Your task to perform on an android device: What's the news in Guyana? Image 0: 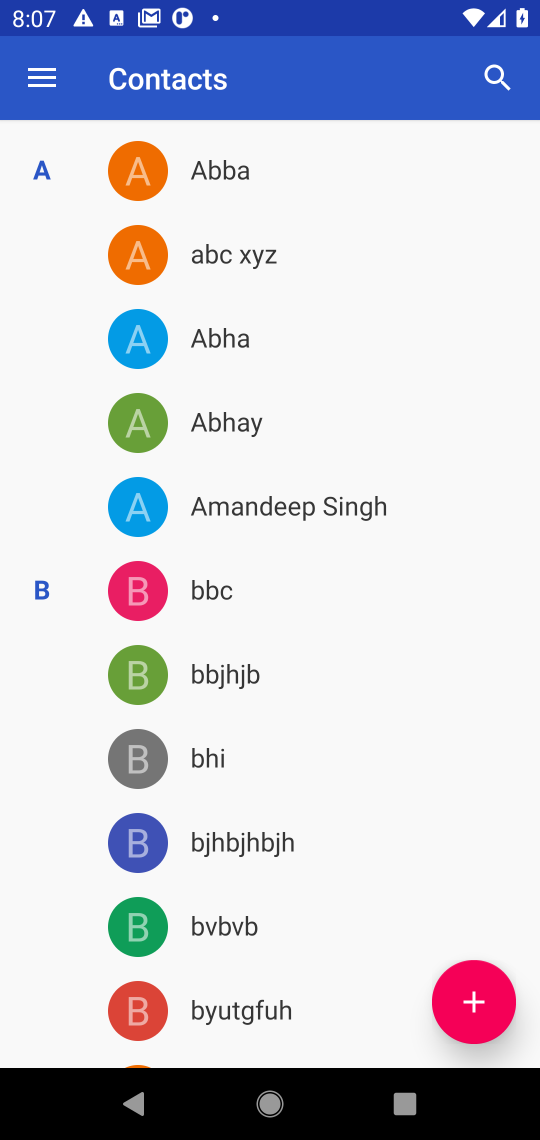
Step 0: press back button
Your task to perform on an android device: What's the news in Guyana? Image 1: 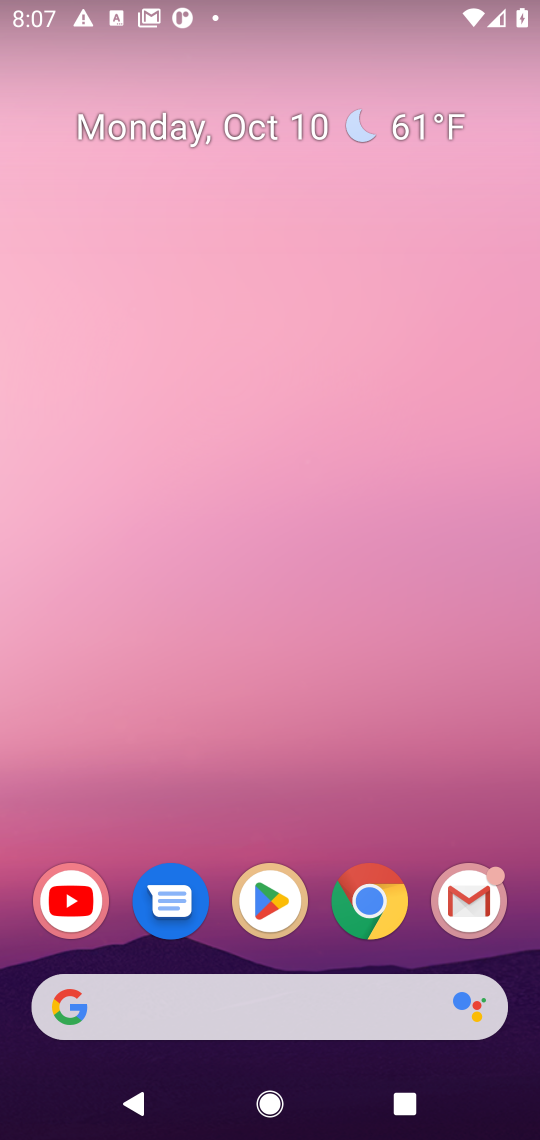
Step 1: click (364, 994)
Your task to perform on an android device: What's the news in Guyana? Image 2: 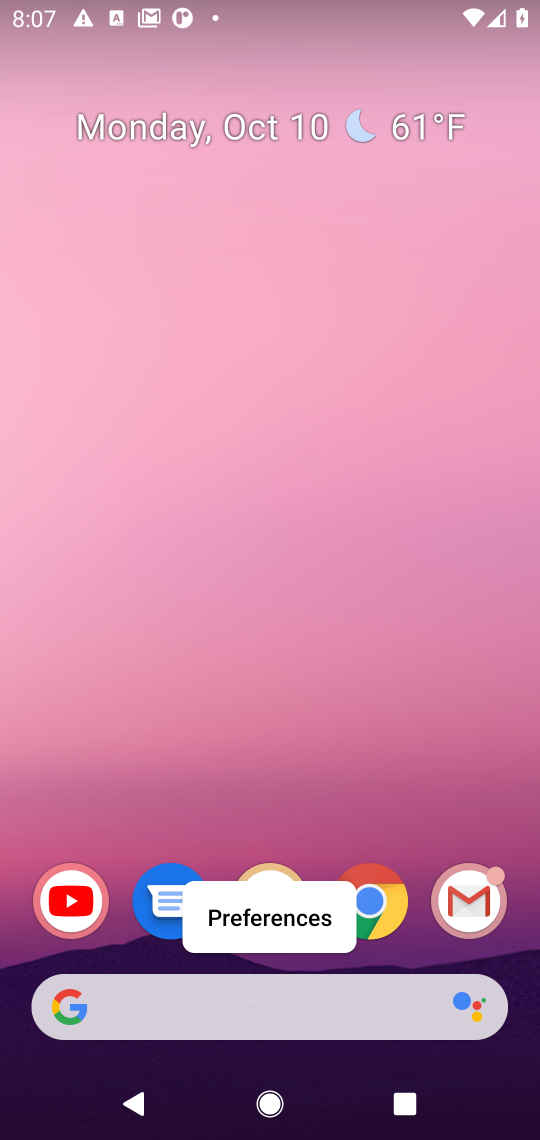
Step 2: click (185, 1006)
Your task to perform on an android device: What's the news in Guyana? Image 3: 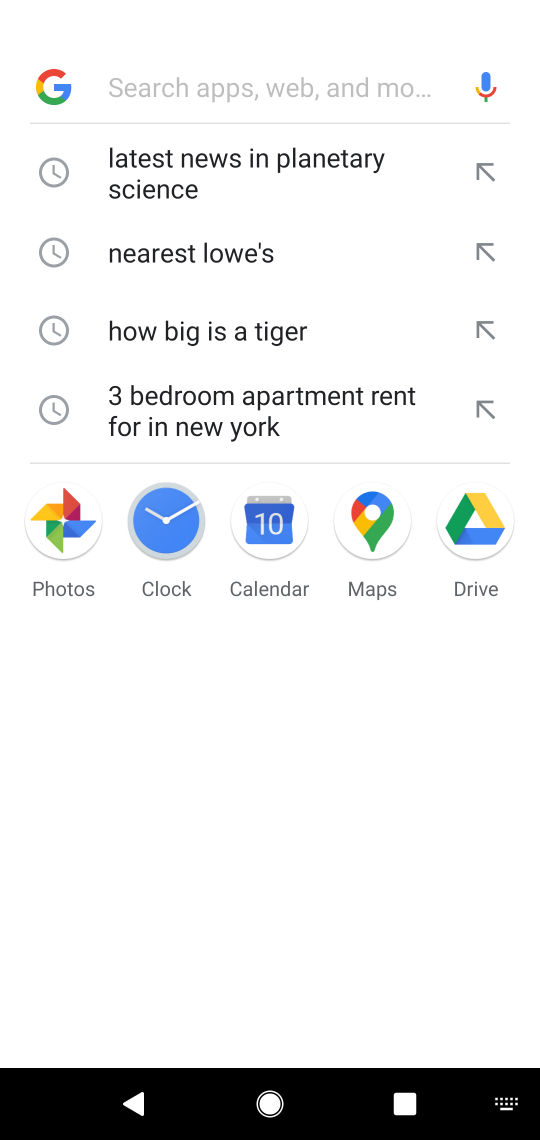
Step 3: type "the news in Guyana"
Your task to perform on an android device: What's the news in Guyana? Image 4: 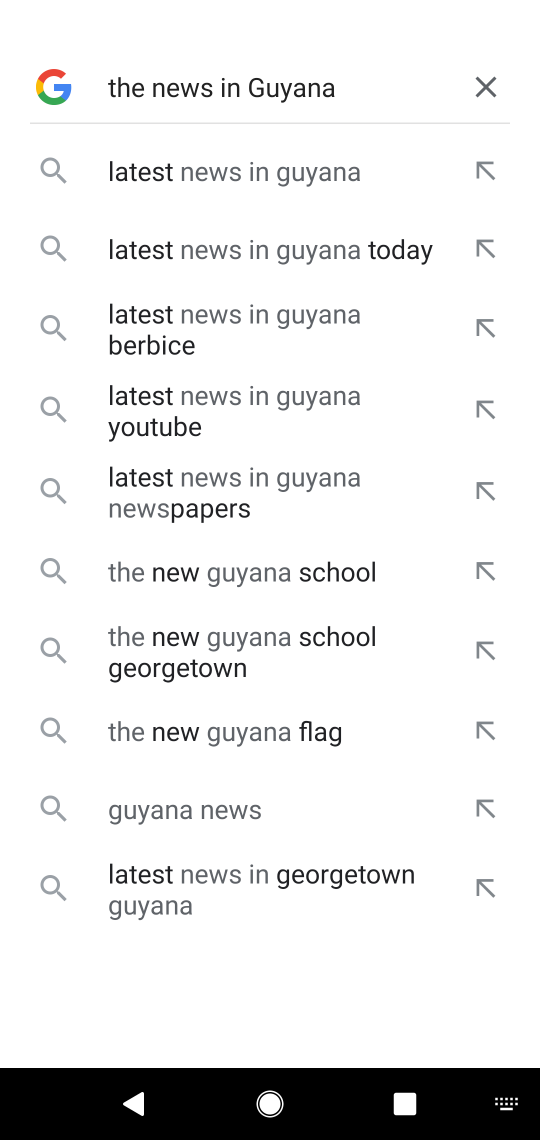
Step 4: type ""
Your task to perform on an android device: What's the news in Guyana? Image 5: 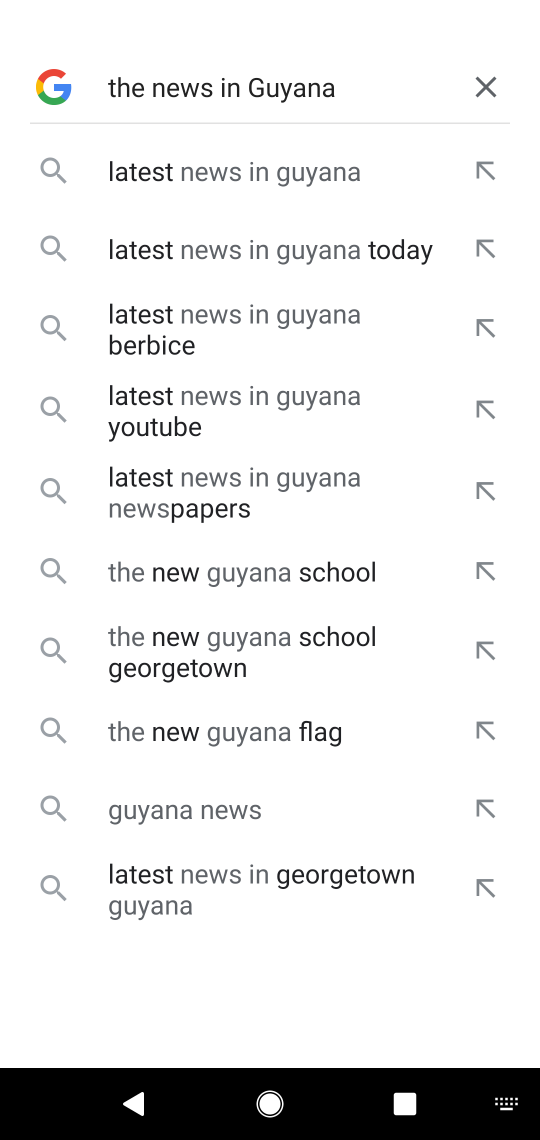
Step 5: click (218, 178)
Your task to perform on an android device: What's the news in Guyana? Image 6: 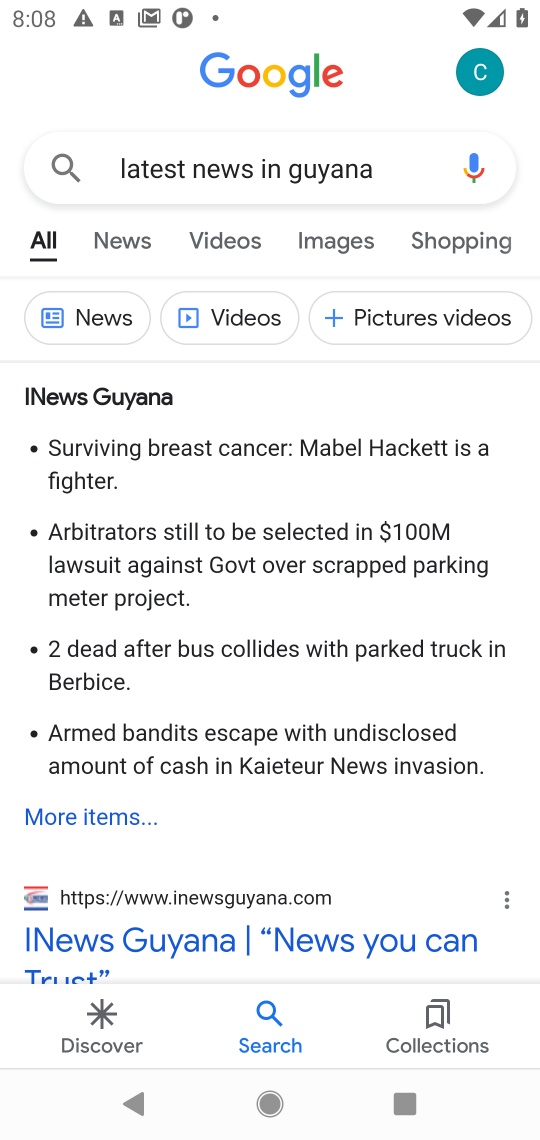
Step 6: drag from (209, 673) to (251, 326)
Your task to perform on an android device: What's the news in Guyana? Image 7: 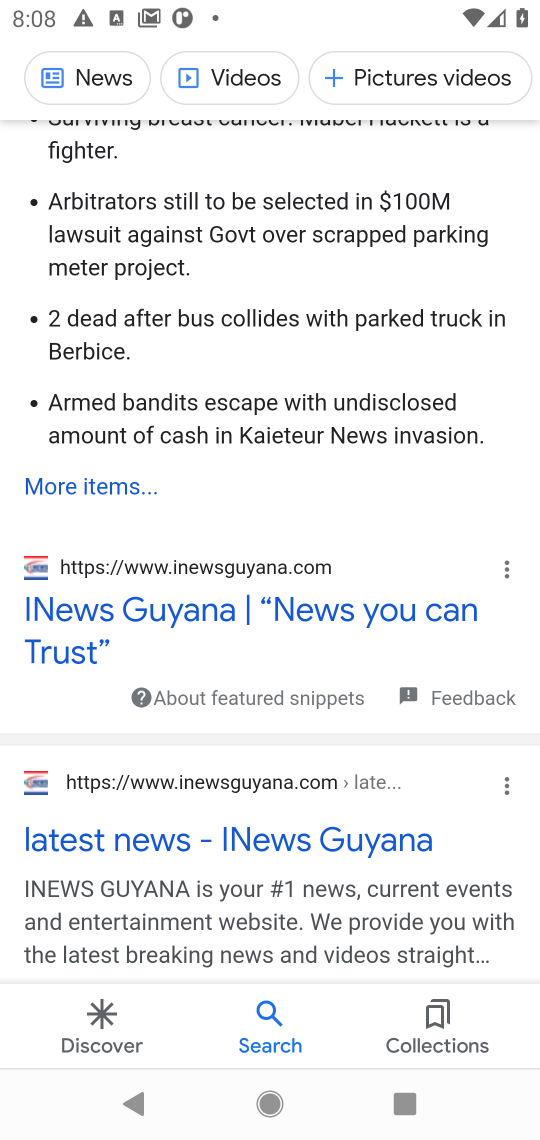
Step 7: drag from (410, 699) to (402, 457)
Your task to perform on an android device: What's the news in Guyana? Image 8: 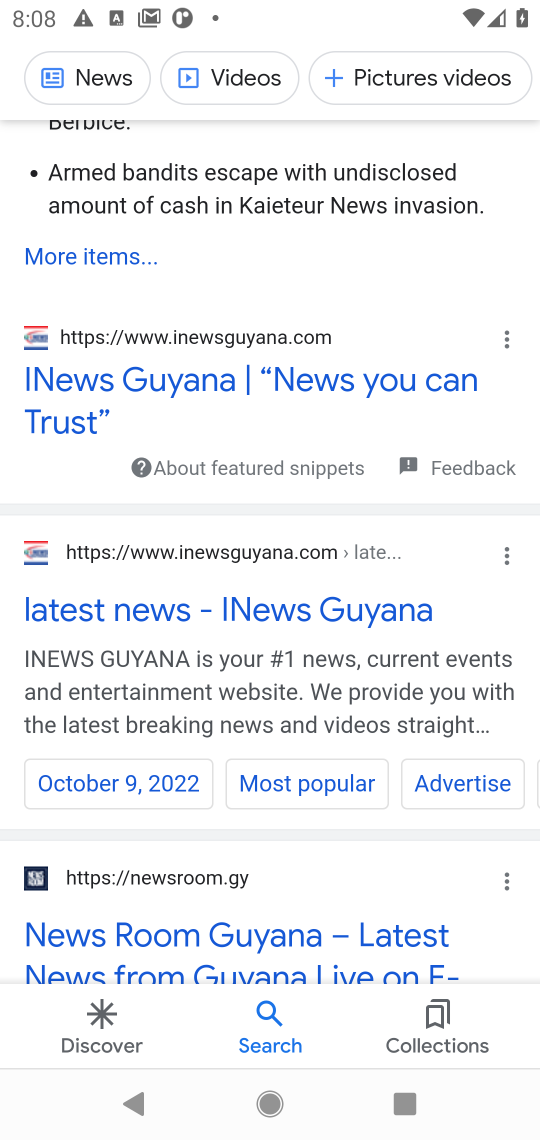
Step 8: drag from (314, 848) to (314, 517)
Your task to perform on an android device: What's the news in Guyana? Image 9: 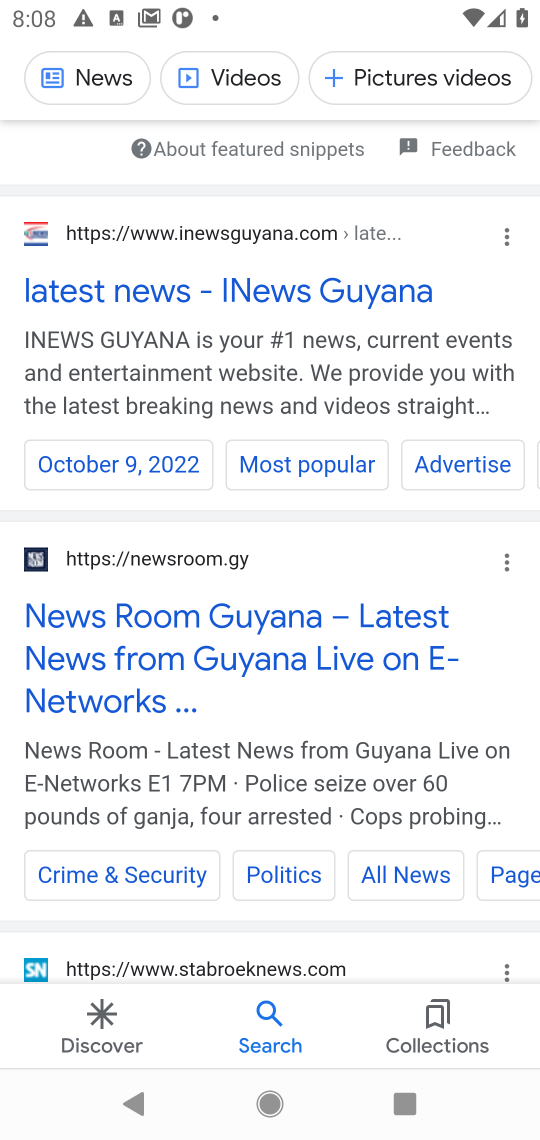
Step 9: click (112, 827)
Your task to perform on an android device: What's the news in Guyana? Image 10: 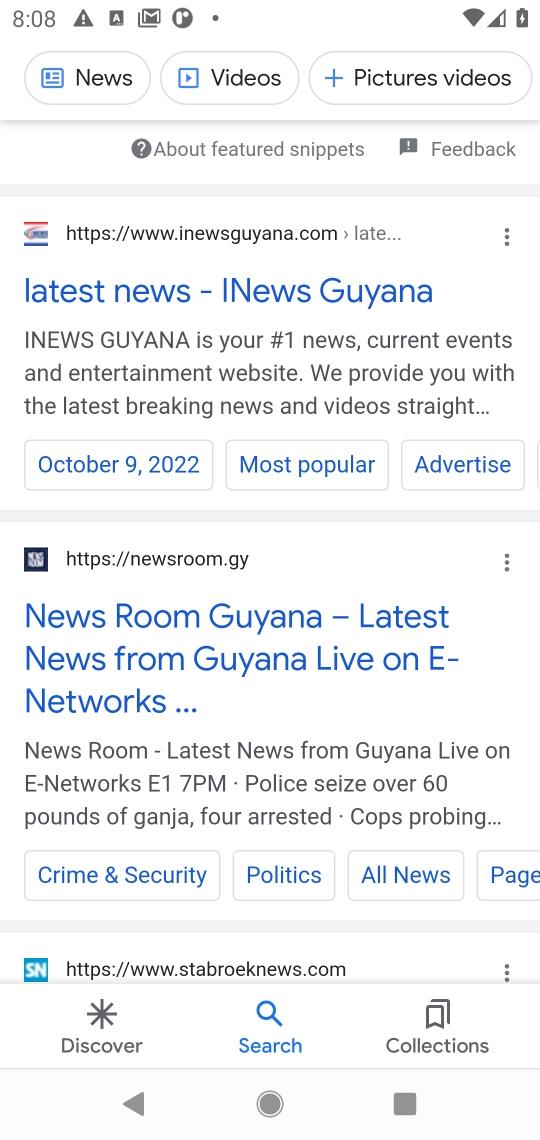
Step 10: drag from (114, 784) to (123, 721)
Your task to perform on an android device: What's the news in Guyana? Image 11: 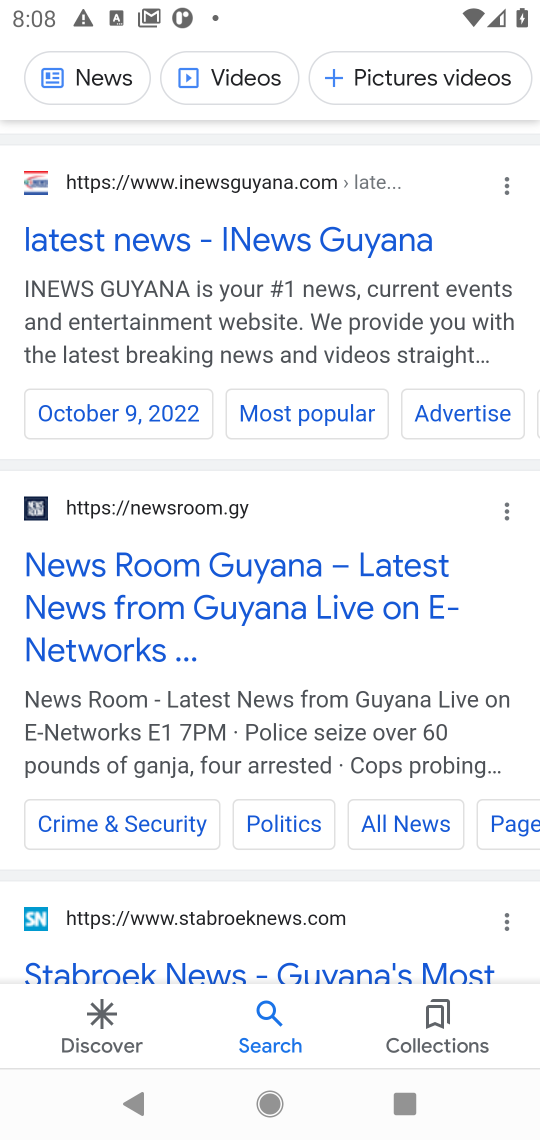
Step 11: click (134, 626)
Your task to perform on an android device: What's the news in Guyana? Image 12: 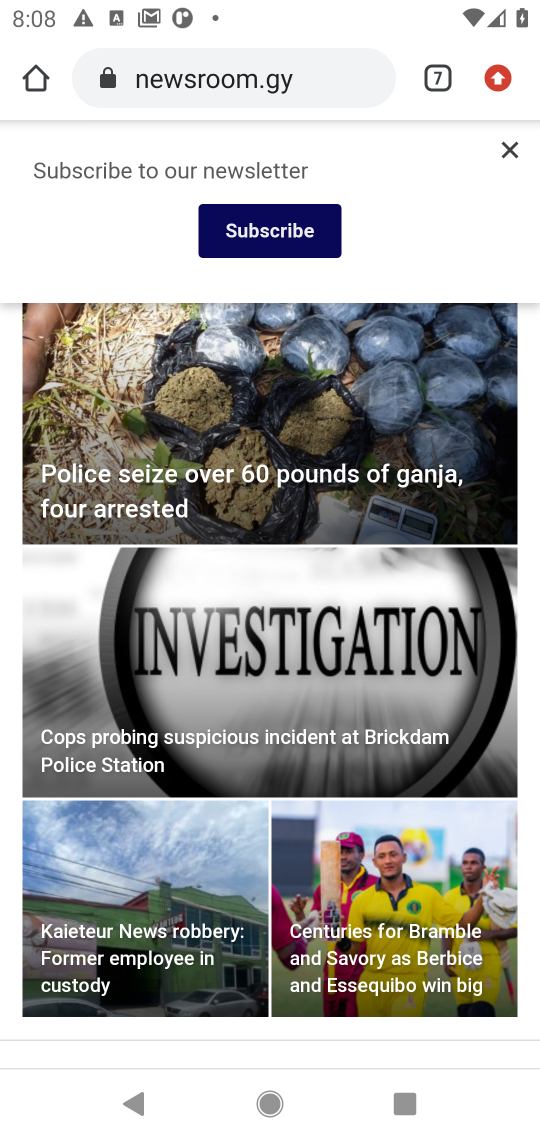
Step 12: drag from (142, 708) to (184, 409)
Your task to perform on an android device: What's the news in Guyana? Image 13: 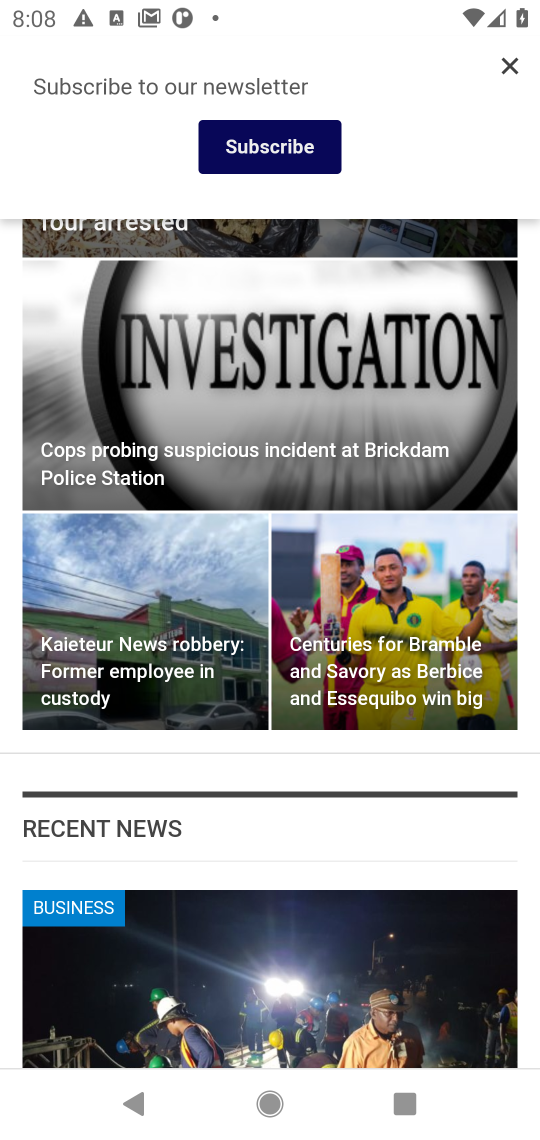
Step 13: click (486, 744)
Your task to perform on an android device: What's the news in Guyana? Image 14: 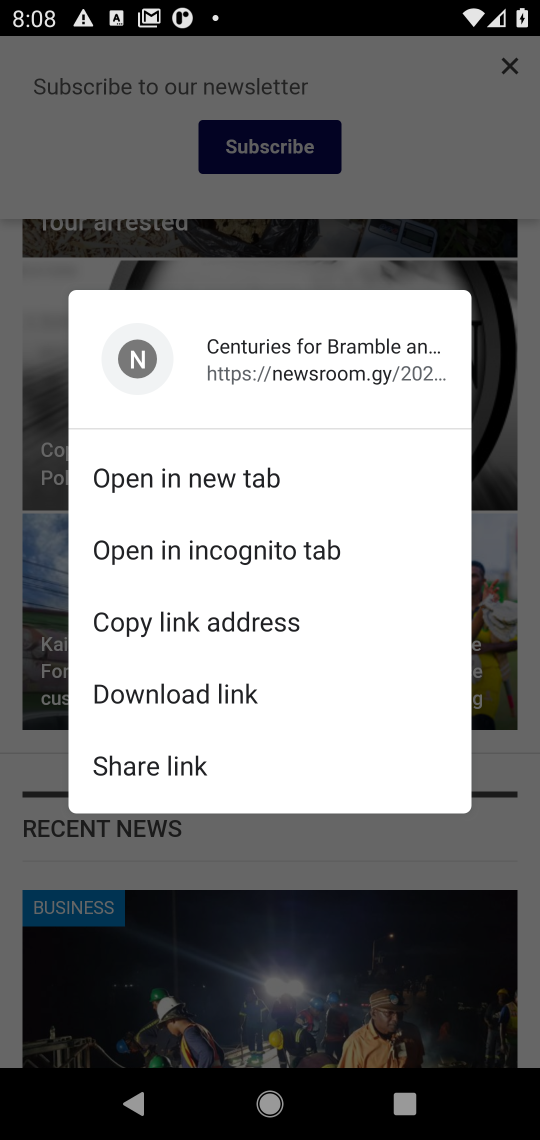
Step 14: click (520, 758)
Your task to perform on an android device: What's the news in Guyana? Image 15: 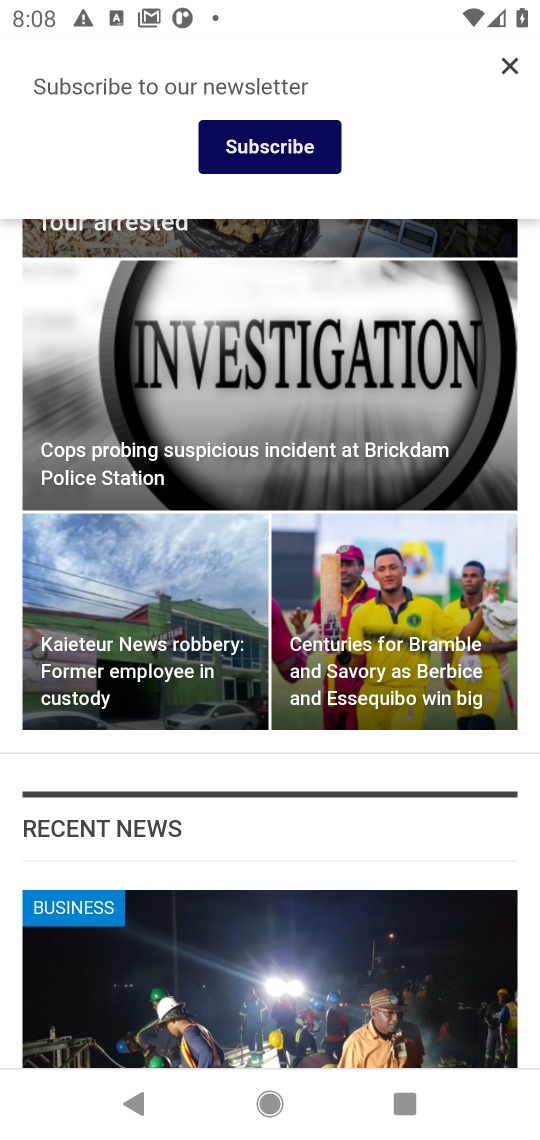
Step 15: drag from (20, 774) to (19, 323)
Your task to perform on an android device: What's the news in Guyana? Image 16: 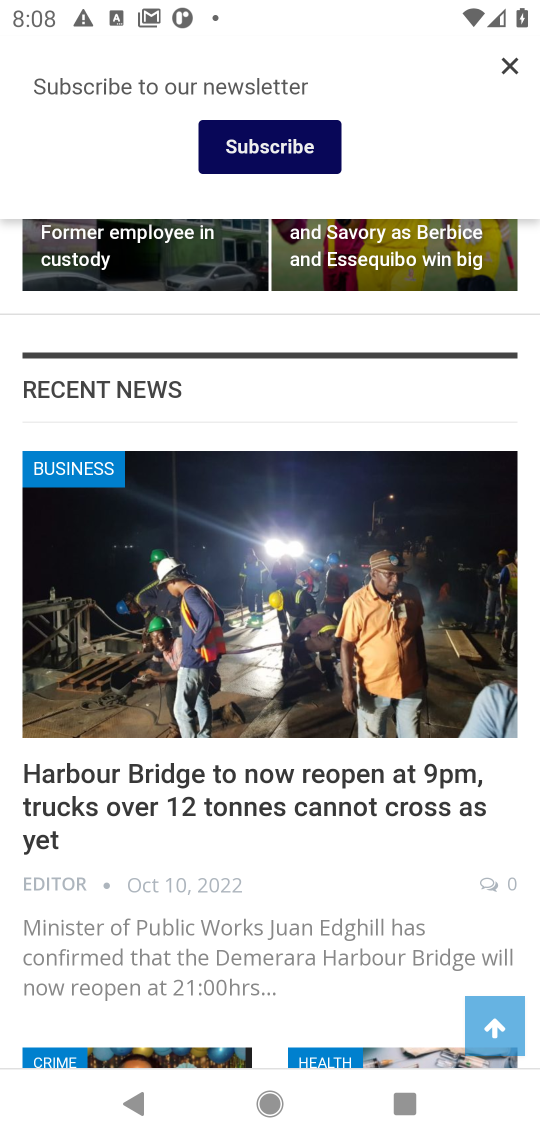
Step 16: drag from (16, 860) to (25, 251)
Your task to perform on an android device: What's the news in Guyana? Image 17: 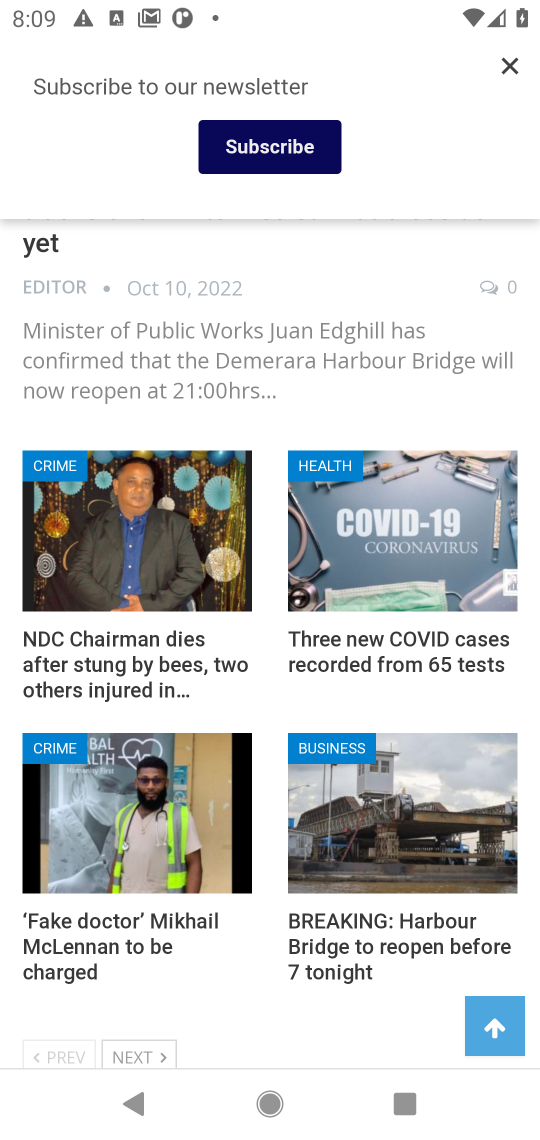
Step 17: drag from (10, 389) to (19, 218)
Your task to perform on an android device: What's the news in Guyana? Image 18: 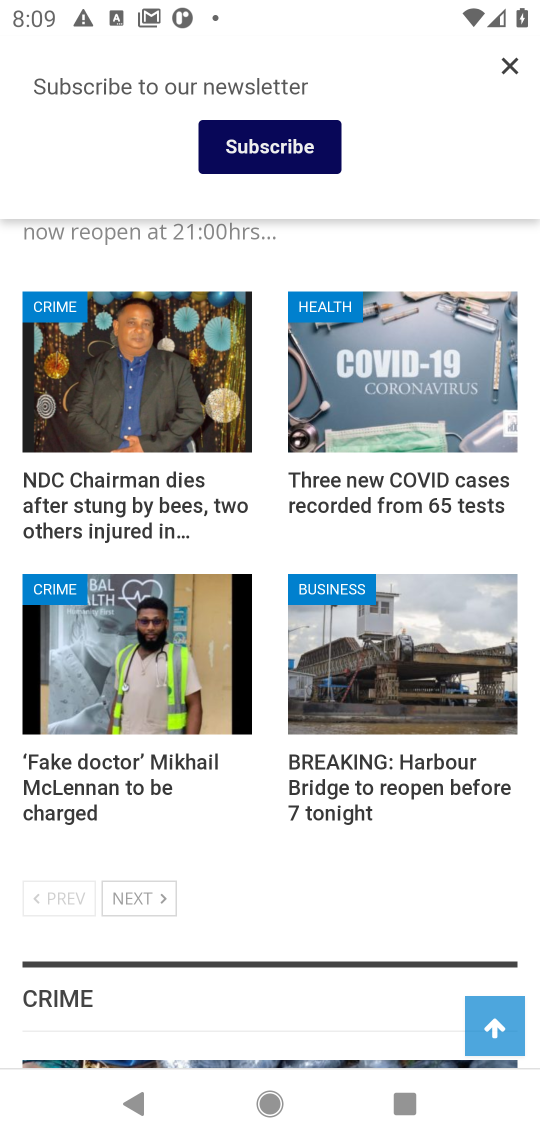
Step 18: drag from (26, 739) to (8, 234)
Your task to perform on an android device: What's the news in Guyana? Image 19: 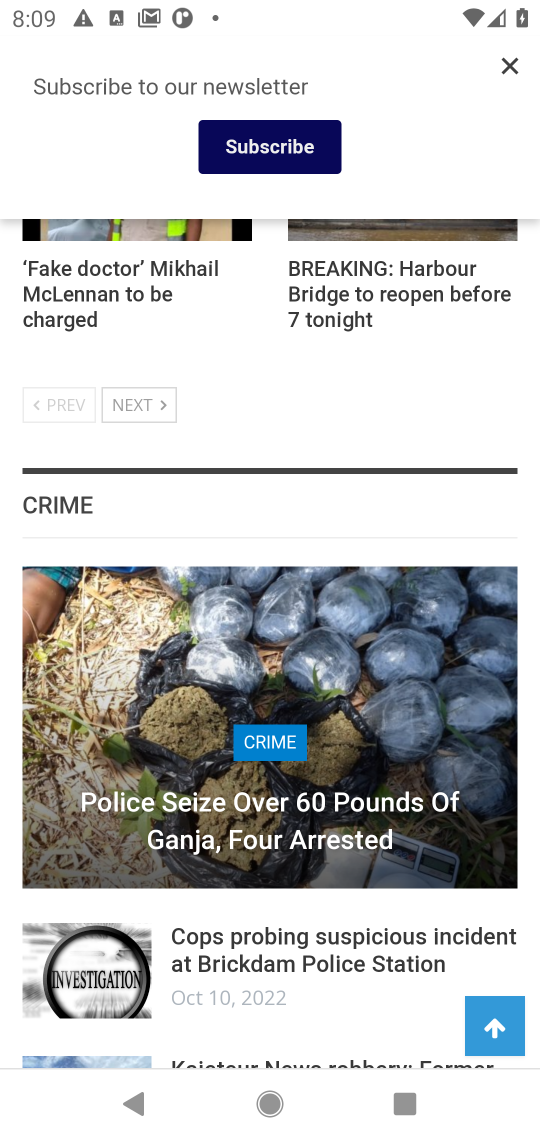
Step 19: click (17, 375)
Your task to perform on an android device: What's the news in Guyana? Image 20: 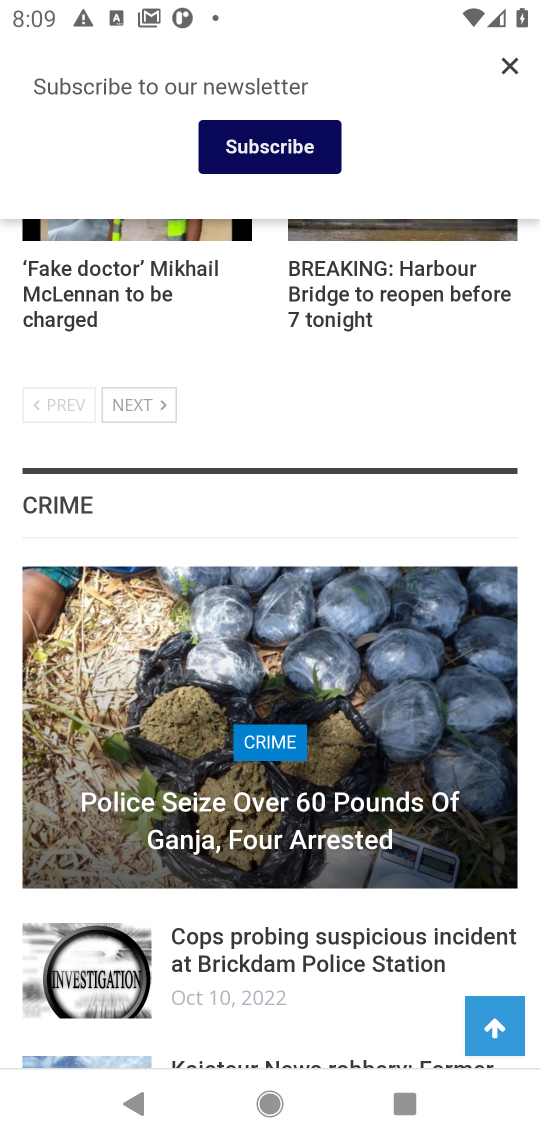
Step 20: task complete